Your task to perform on an android device: Open accessibility settings Image 0: 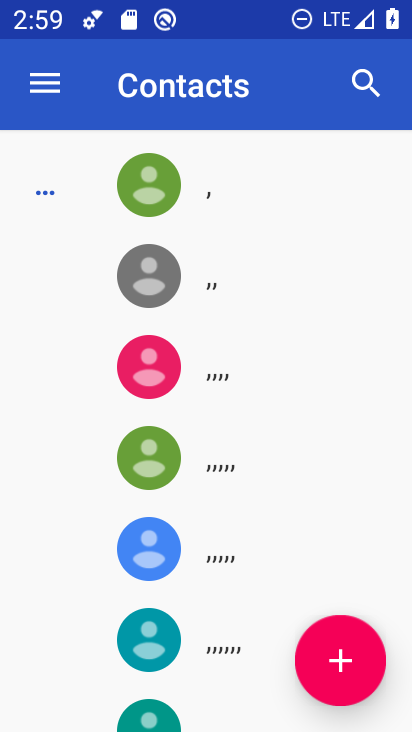
Step 0: press home button
Your task to perform on an android device: Open accessibility settings Image 1: 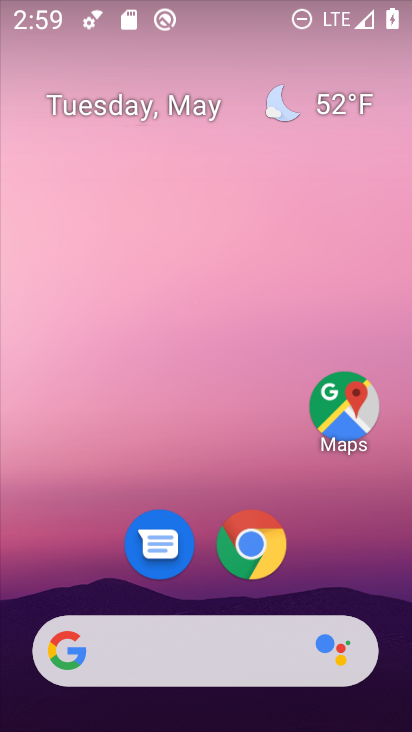
Step 1: drag from (348, 555) to (367, 191)
Your task to perform on an android device: Open accessibility settings Image 2: 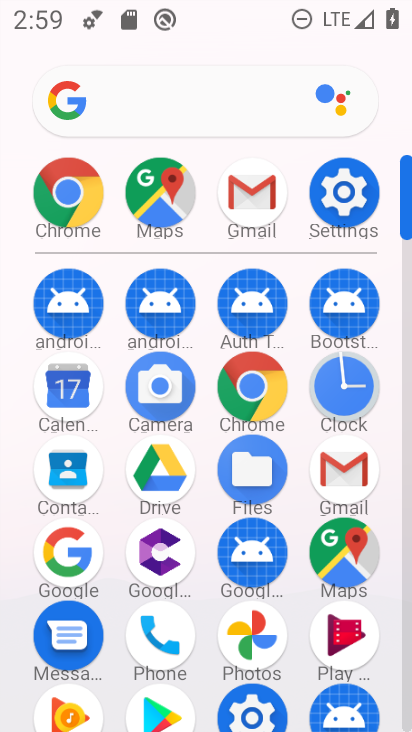
Step 2: click (329, 185)
Your task to perform on an android device: Open accessibility settings Image 3: 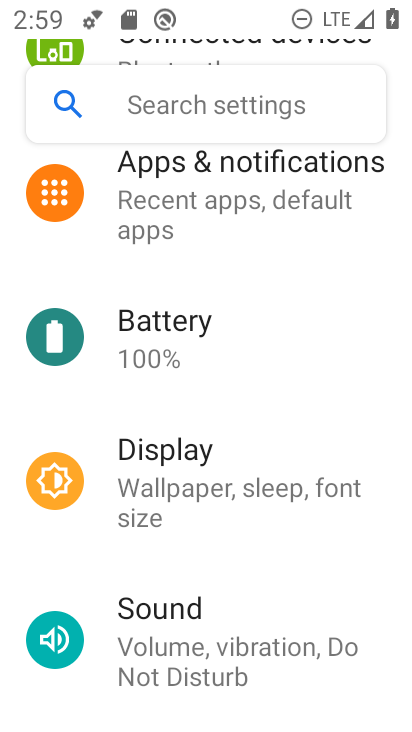
Step 3: drag from (330, 331) to (341, 421)
Your task to perform on an android device: Open accessibility settings Image 4: 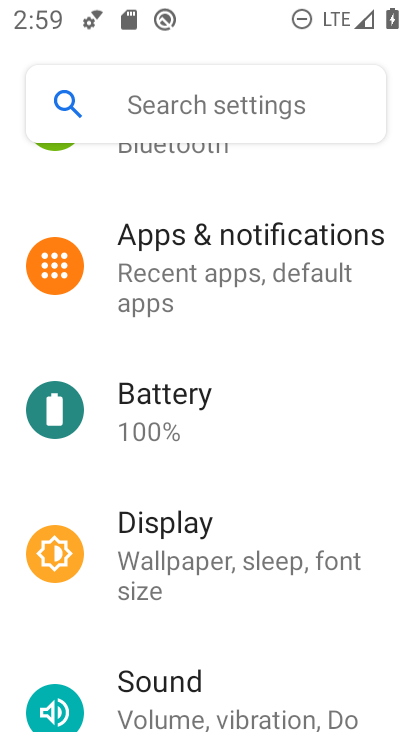
Step 4: click (369, 440)
Your task to perform on an android device: Open accessibility settings Image 5: 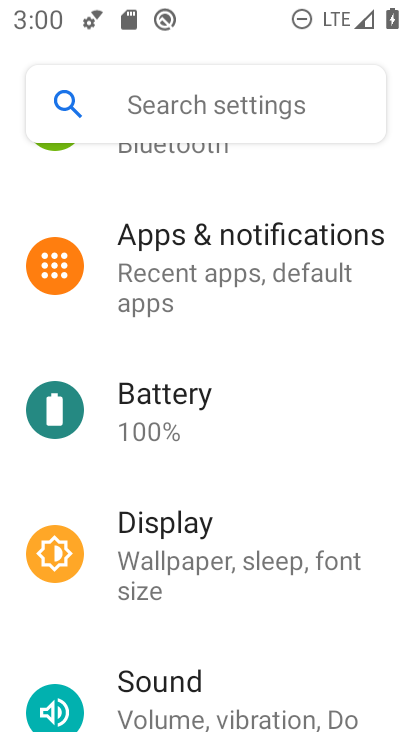
Step 5: drag from (392, 374) to (375, 520)
Your task to perform on an android device: Open accessibility settings Image 6: 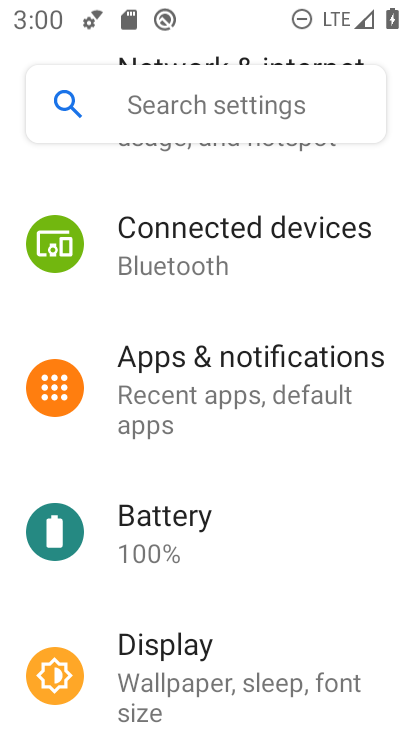
Step 6: drag from (363, 593) to (353, 426)
Your task to perform on an android device: Open accessibility settings Image 7: 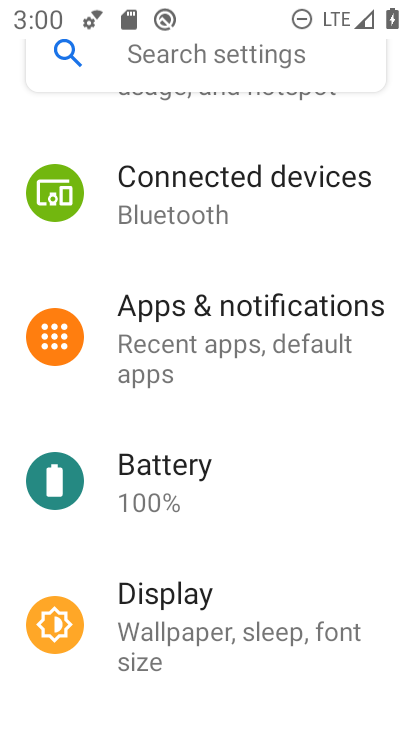
Step 7: drag from (373, 519) to (381, 439)
Your task to perform on an android device: Open accessibility settings Image 8: 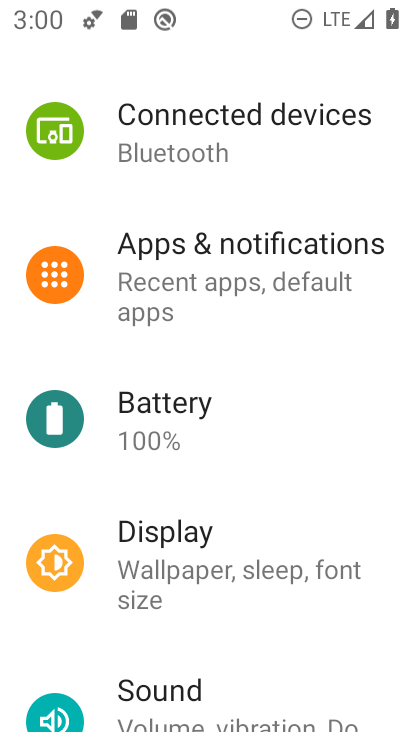
Step 8: drag from (385, 592) to (395, 453)
Your task to perform on an android device: Open accessibility settings Image 9: 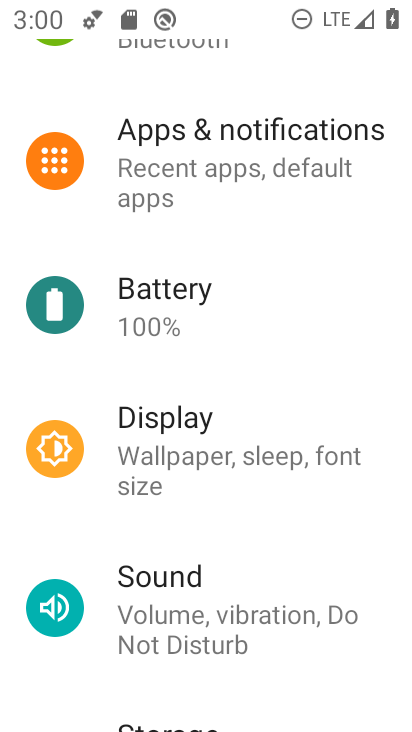
Step 9: drag from (344, 669) to (348, 543)
Your task to perform on an android device: Open accessibility settings Image 10: 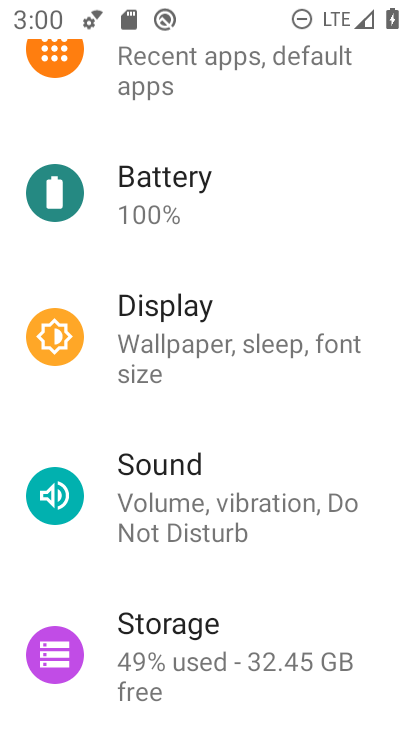
Step 10: drag from (334, 508) to (334, 447)
Your task to perform on an android device: Open accessibility settings Image 11: 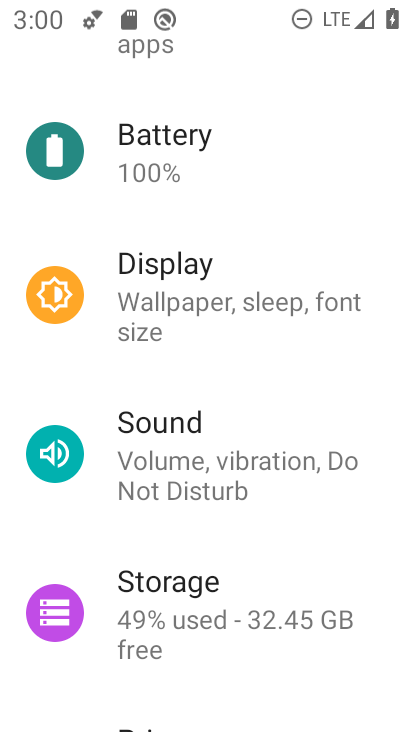
Step 11: drag from (301, 642) to (309, 485)
Your task to perform on an android device: Open accessibility settings Image 12: 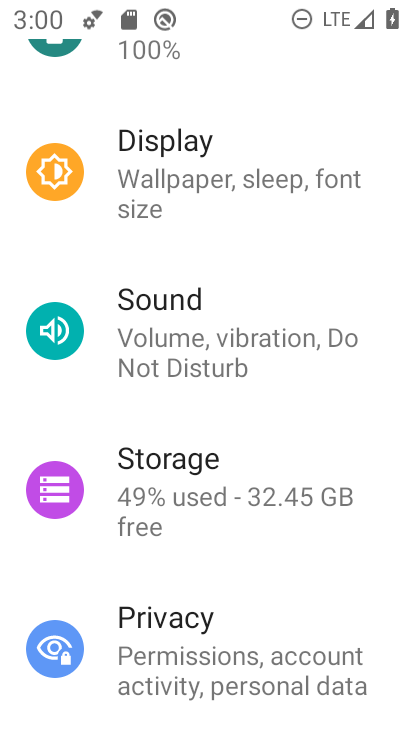
Step 12: drag from (288, 649) to (296, 549)
Your task to perform on an android device: Open accessibility settings Image 13: 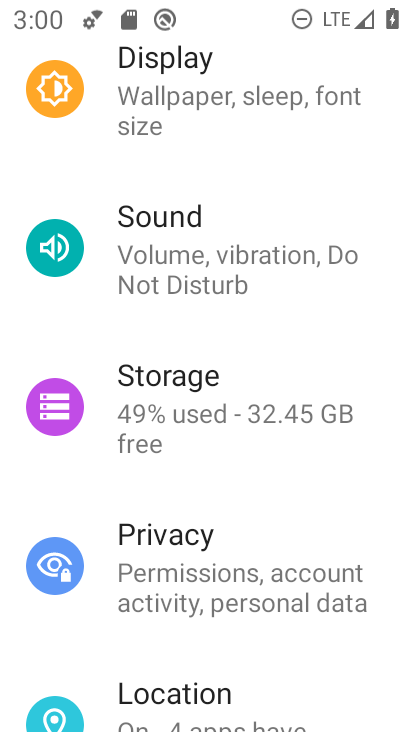
Step 13: drag from (277, 706) to (282, 634)
Your task to perform on an android device: Open accessibility settings Image 14: 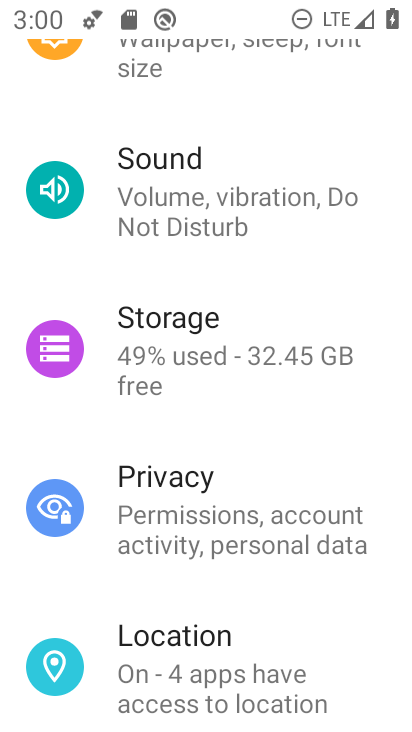
Step 14: drag from (278, 718) to (290, 642)
Your task to perform on an android device: Open accessibility settings Image 15: 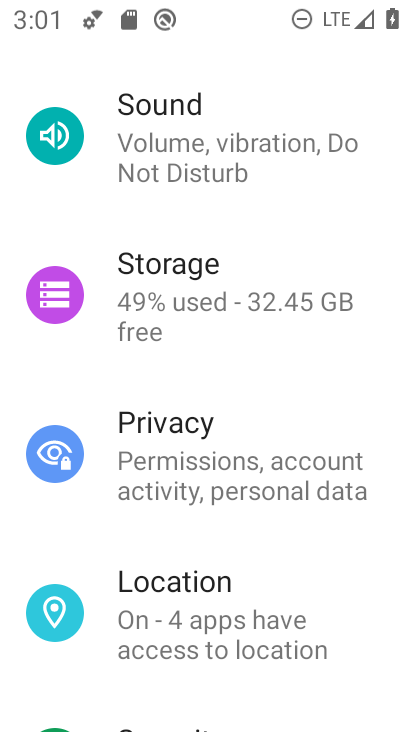
Step 15: drag from (322, 601) to (338, 519)
Your task to perform on an android device: Open accessibility settings Image 16: 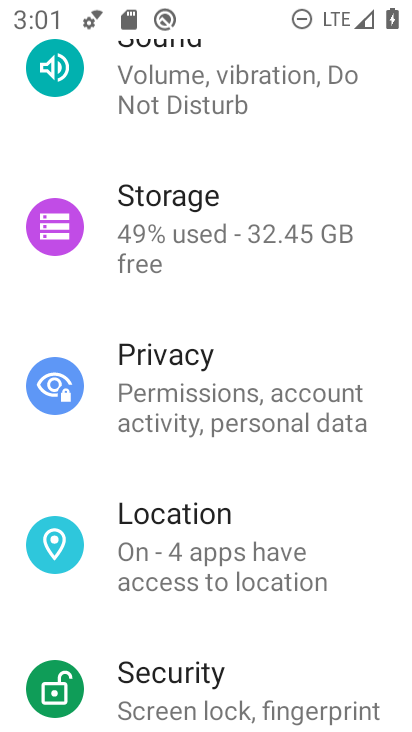
Step 16: drag from (339, 650) to (359, 540)
Your task to perform on an android device: Open accessibility settings Image 17: 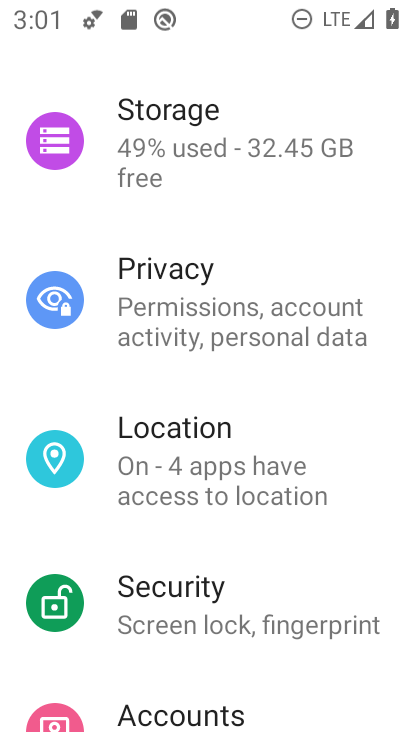
Step 17: drag from (335, 699) to (344, 579)
Your task to perform on an android device: Open accessibility settings Image 18: 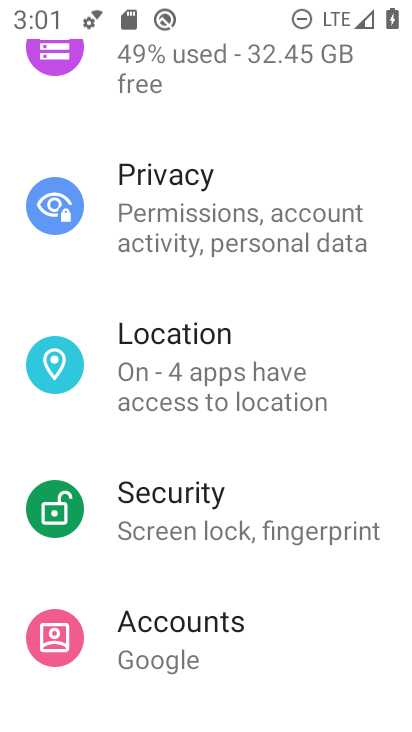
Step 18: drag from (330, 602) to (318, 490)
Your task to perform on an android device: Open accessibility settings Image 19: 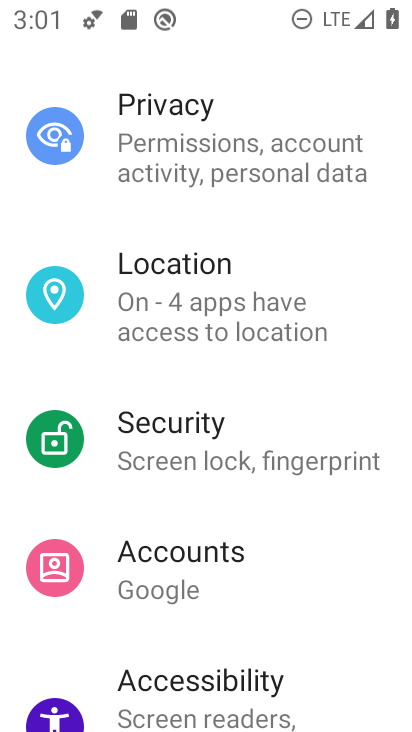
Step 19: drag from (385, 687) to (408, 589)
Your task to perform on an android device: Open accessibility settings Image 20: 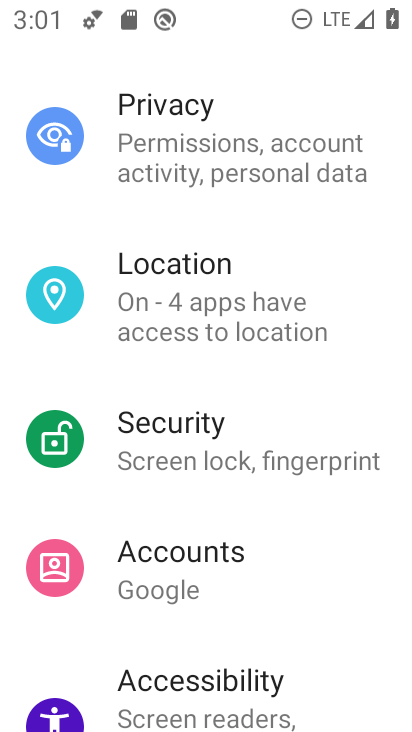
Step 20: drag from (354, 617) to (341, 466)
Your task to perform on an android device: Open accessibility settings Image 21: 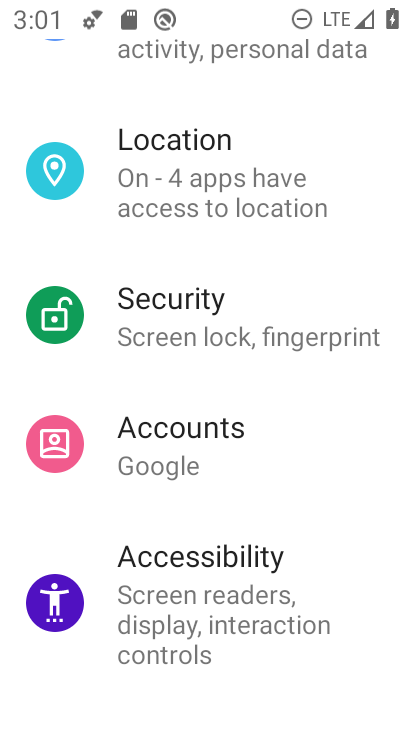
Step 21: click (296, 582)
Your task to perform on an android device: Open accessibility settings Image 22: 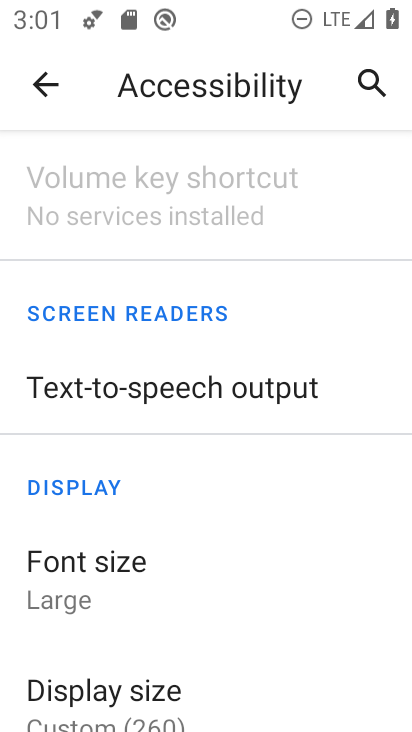
Step 22: task complete